Your task to perform on an android device: turn off priority inbox in the gmail app Image 0: 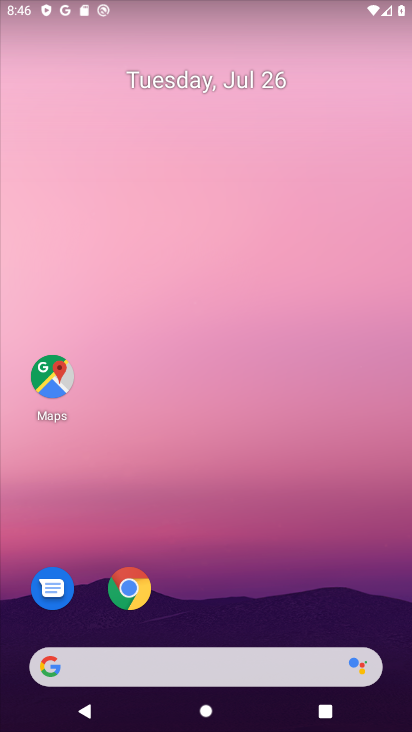
Step 0: press home button
Your task to perform on an android device: turn off priority inbox in the gmail app Image 1: 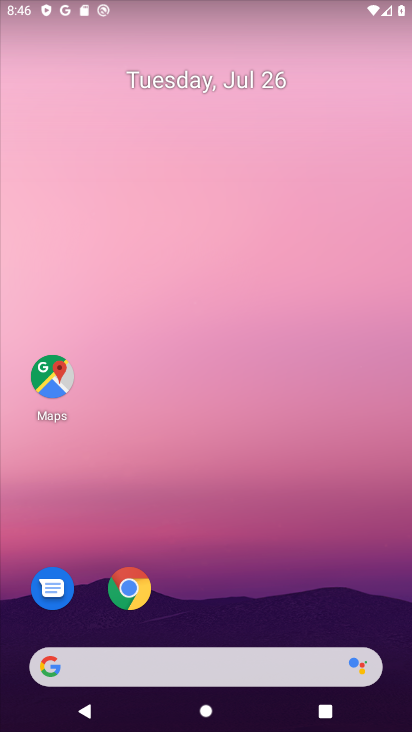
Step 1: drag from (225, 627) to (218, 0)
Your task to perform on an android device: turn off priority inbox in the gmail app Image 2: 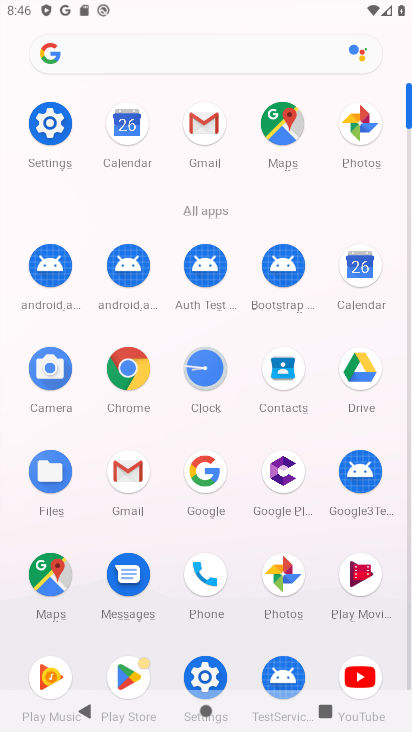
Step 2: click (202, 114)
Your task to perform on an android device: turn off priority inbox in the gmail app Image 3: 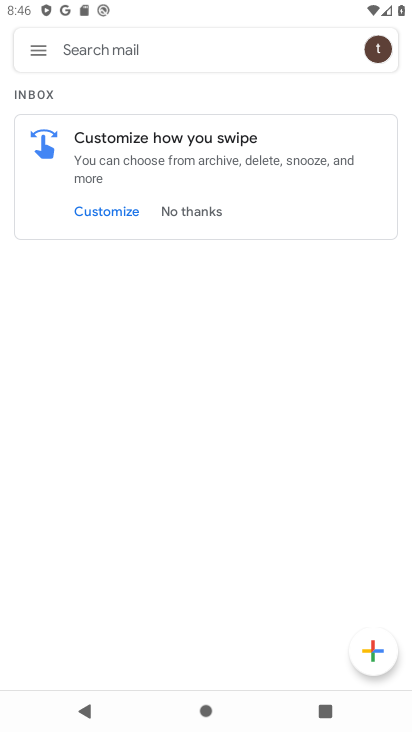
Step 3: click (37, 44)
Your task to perform on an android device: turn off priority inbox in the gmail app Image 4: 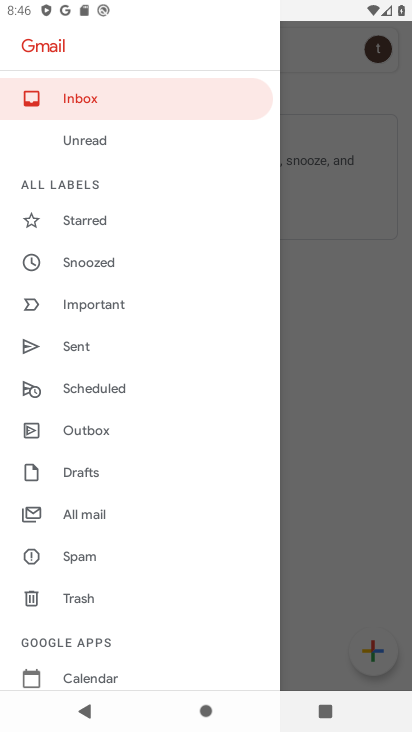
Step 4: drag from (125, 642) to (159, 68)
Your task to perform on an android device: turn off priority inbox in the gmail app Image 5: 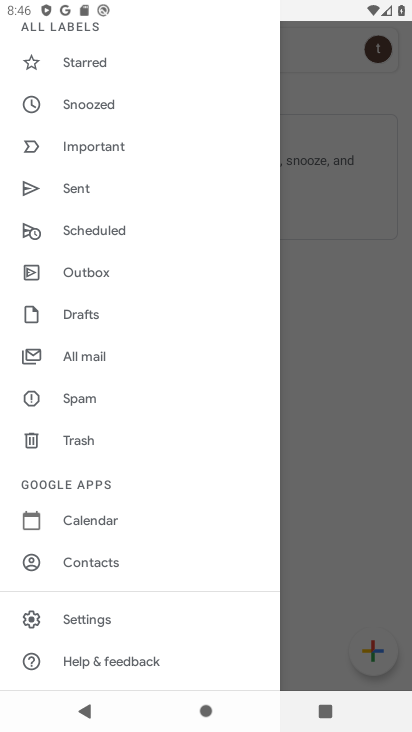
Step 5: click (115, 615)
Your task to perform on an android device: turn off priority inbox in the gmail app Image 6: 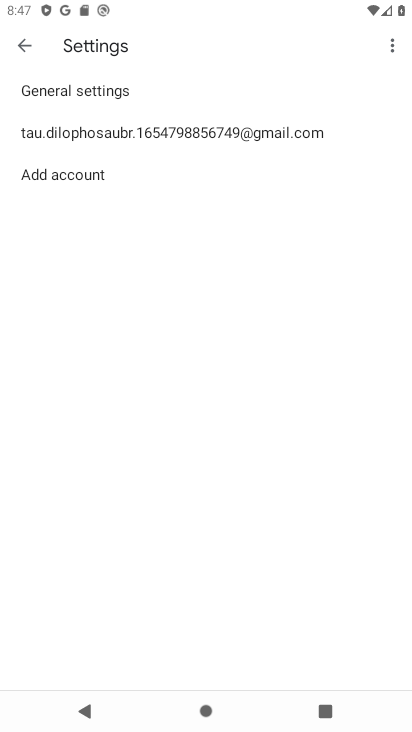
Step 6: click (128, 128)
Your task to perform on an android device: turn off priority inbox in the gmail app Image 7: 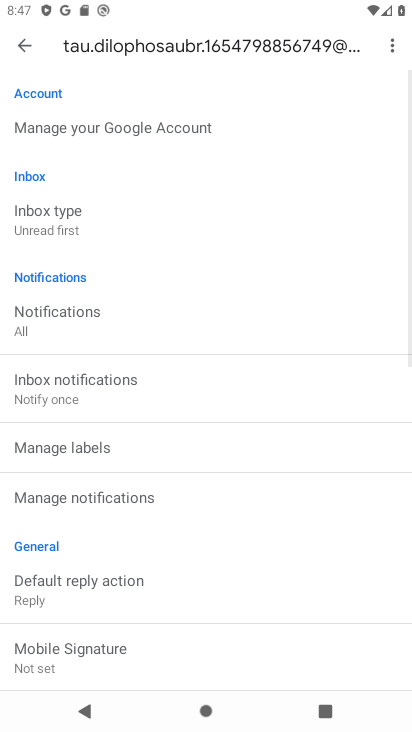
Step 7: click (76, 214)
Your task to perform on an android device: turn off priority inbox in the gmail app Image 8: 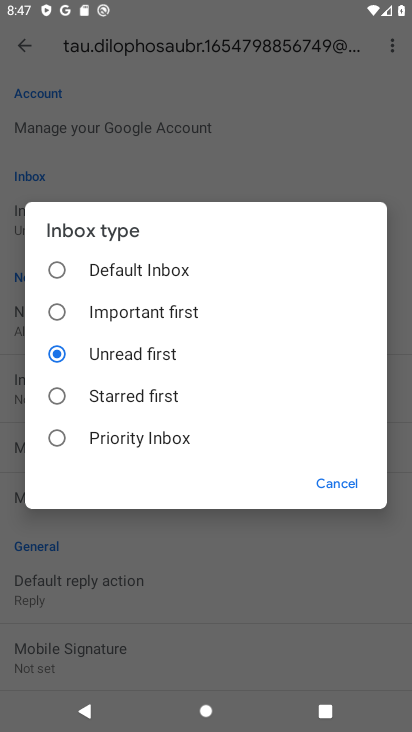
Step 8: click (51, 397)
Your task to perform on an android device: turn off priority inbox in the gmail app Image 9: 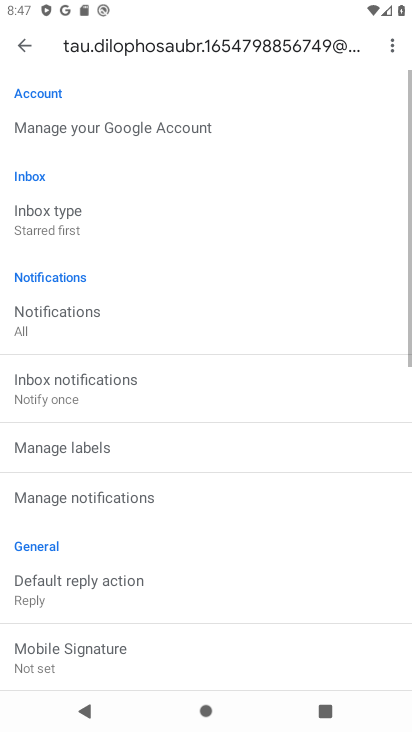
Step 9: task complete